Your task to perform on an android device: Find coffee shops on Maps Image 0: 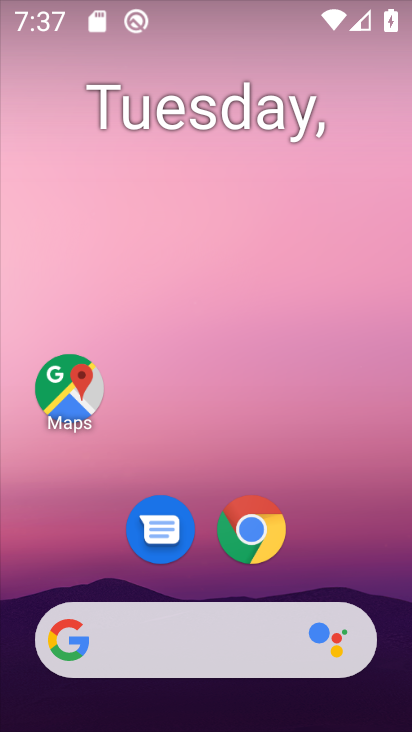
Step 0: click (70, 386)
Your task to perform on an android device: Find coffee shops on Maps Image 1: 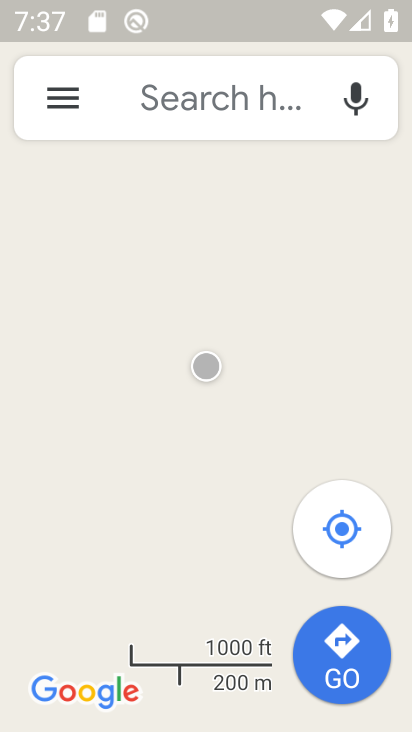
Step 1: click (140, 106)
Your task to perform on an android device: Find coffee shops on Maps Image 2: 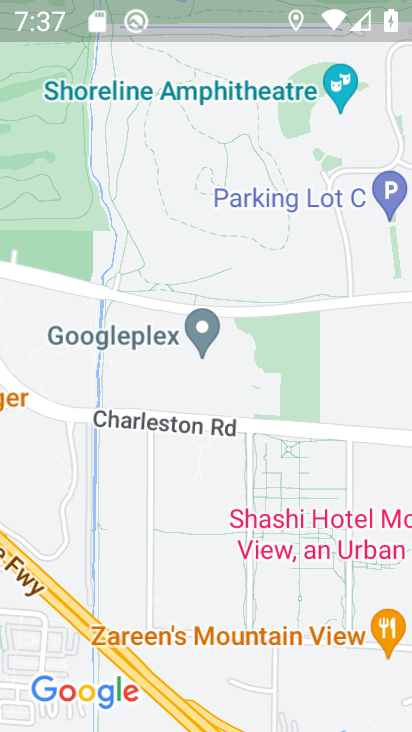
Step 2: drag from (155, 207) to (185, 479)
Your task to perform on an android device: Find coffee shops on Maps Image 3: 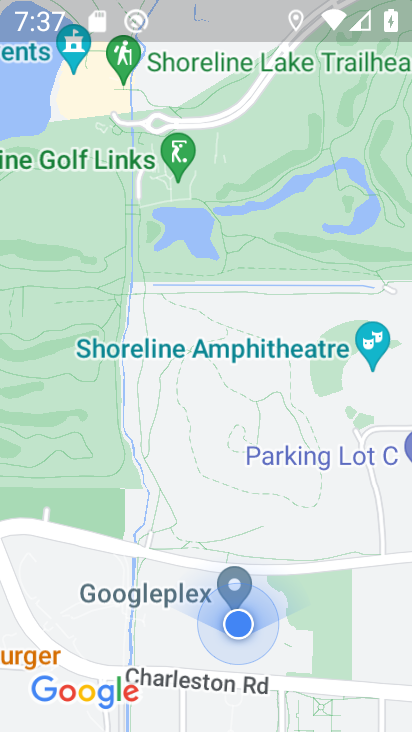
Step 3: drag from (231, 119) to (246, 175)
Your task to perform on an android device: Find coffee shops on Maps Image 4: 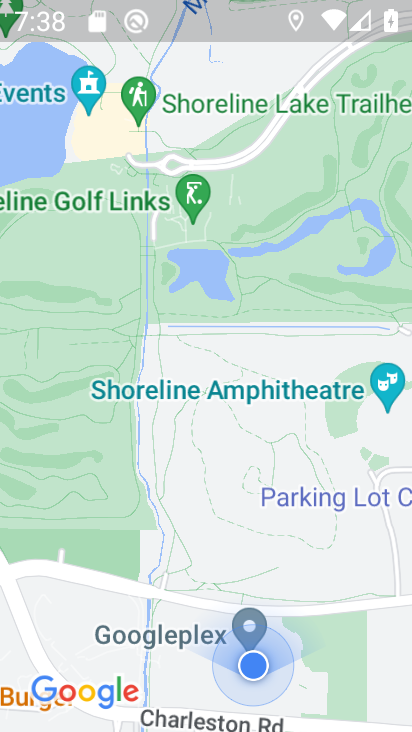
Step 4: click (170, 416)
Your task to perform on an android device: Find coffee shops on Maps Image 5: 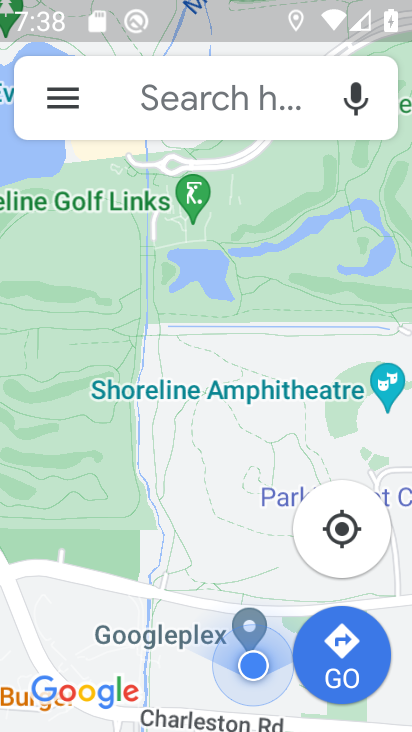
Step 5: click (189, 102)
Your task to perform on an android device: Find coffee shops on Maps Image 6: 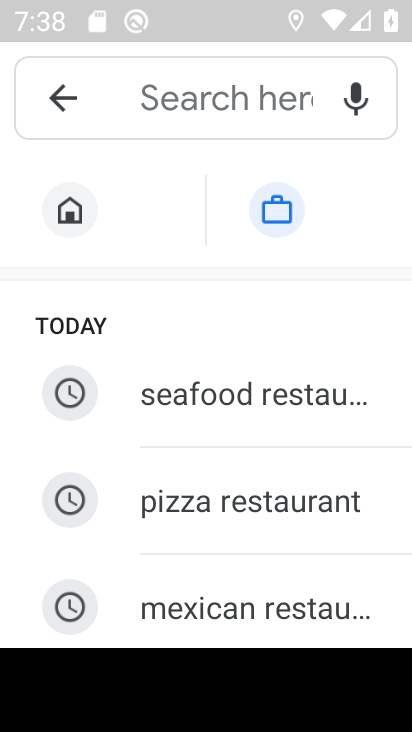
Step 6: type "coffee shops"
Your task to perform on an android device: Find coffee shops on Maps Image 7: 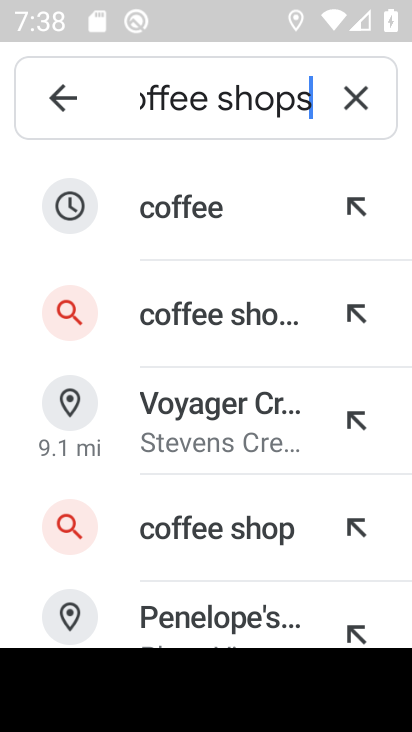
Step 7: click (168, 315)
Your task to perform on an android device: Find coffee shops on Maps Image 8: 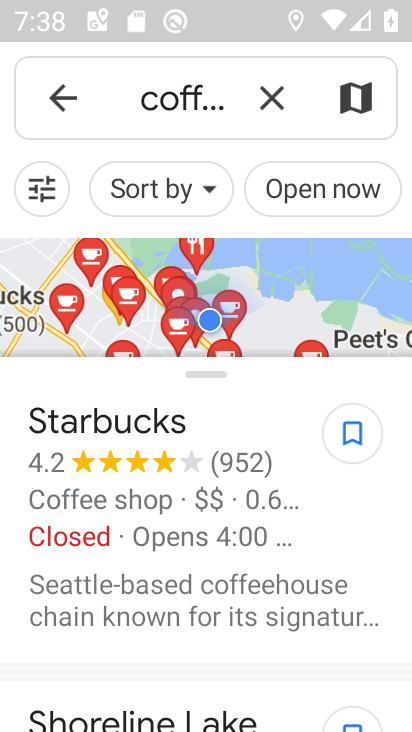
Step 8: task complete